Your task to perform on an android device: delete a single message in the gmail app Image 0: 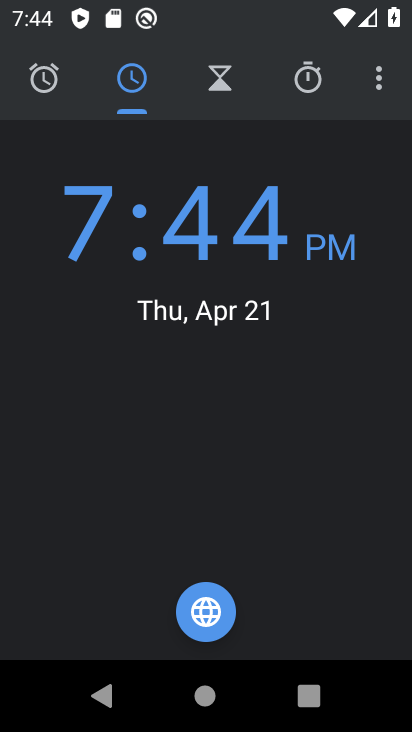
Step 0: press back button
Your task to perform on an android device: delete a single message in the gmail app Image 1: 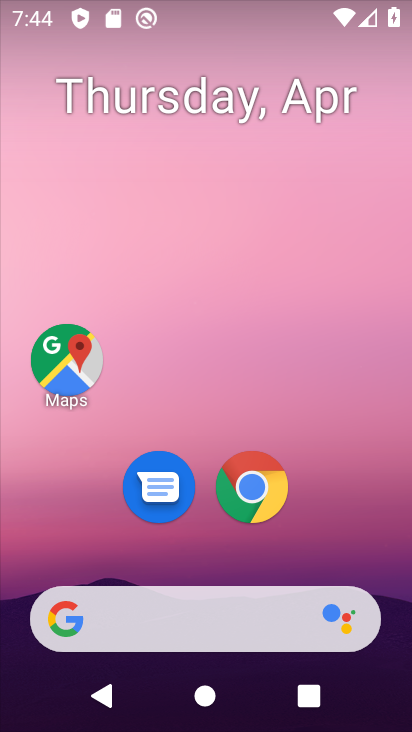
Step 1: drag from (346, 557) to (255, 30)
Your task to perform on an android device: delete a single message in the gmail app Image 2: 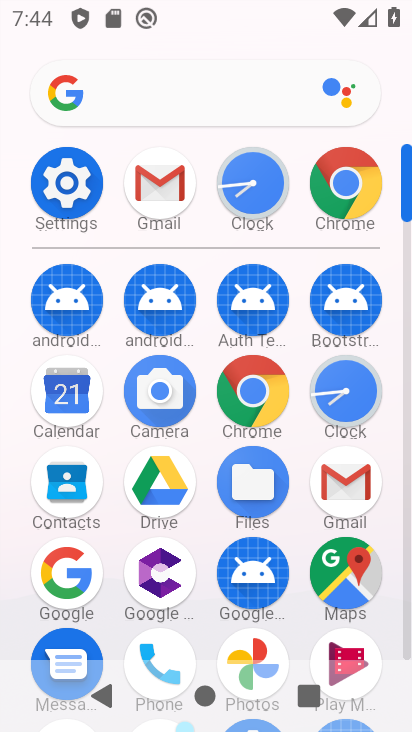
Step 2: click (155, 208)
Your task to perform on an android device: delete a single message in the gmail app Image 3: 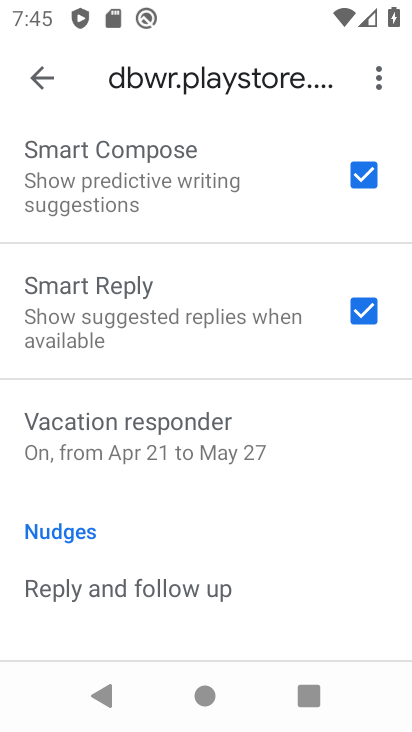
Step 3: click (59, 73)
Your task to perform on an android device: delete a single message in the gmail app Image 4: 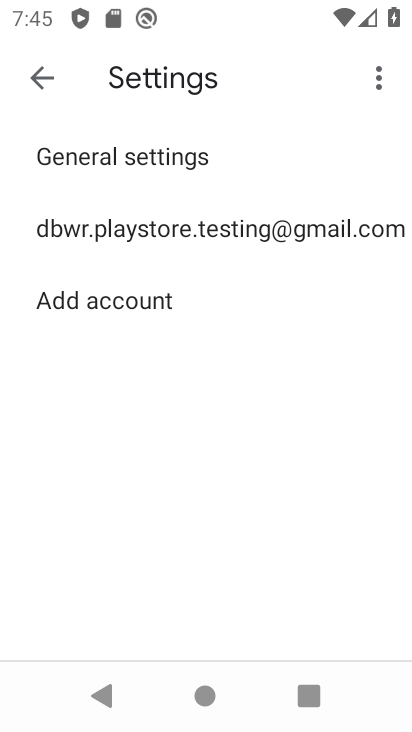
Step 4: press back button
Your task to perform on an android device: delete a single message in the gmail app Image 5: 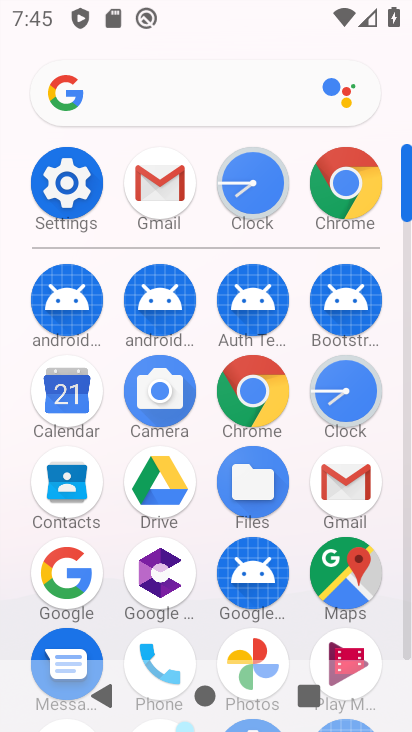
Step 5: click (163, 185)
Your task to perform on an android device: delete a single message in the gmail app Image 6: 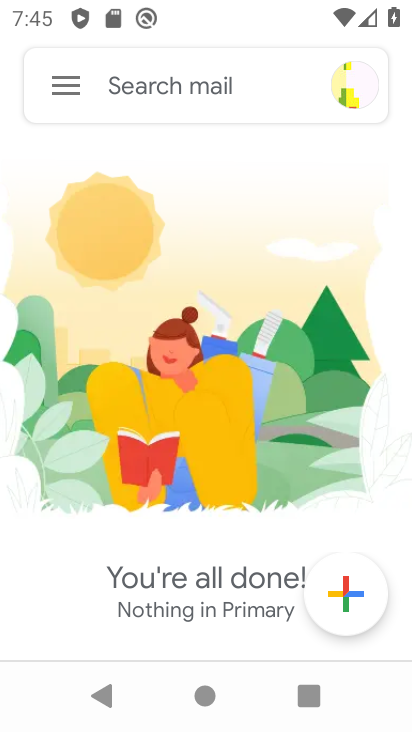
Step 6: task complete